Your task to perform on an android device: Go to Wikipedia Image 0: 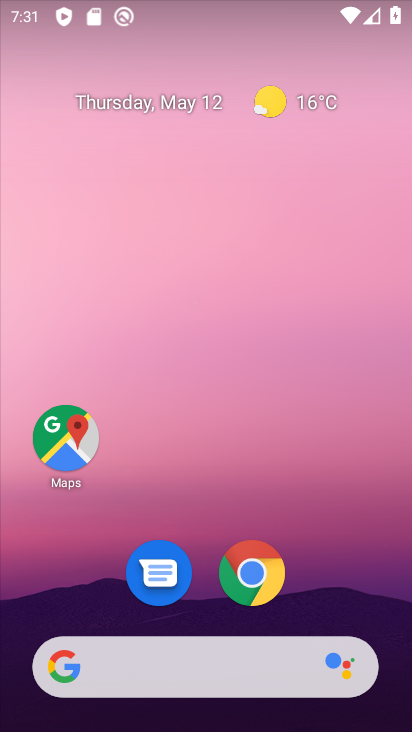
Step 0: click (258, 580)
Your task to perform on an android device: Go to Wikipedia Image 1: 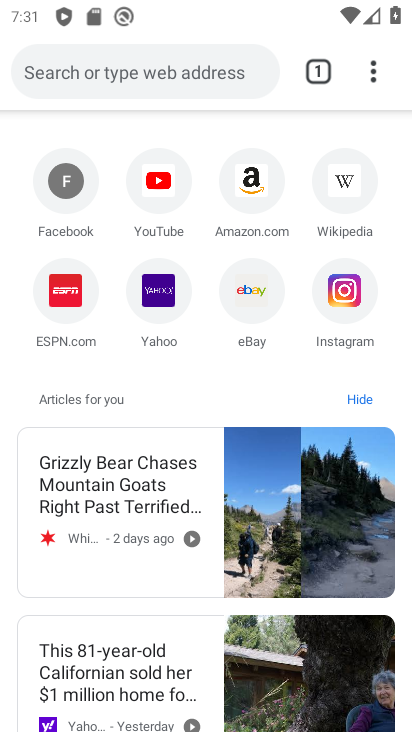
Step 1: click (345, 186)
Your task to perform on an android device: Go to Wikipedia Image 2: 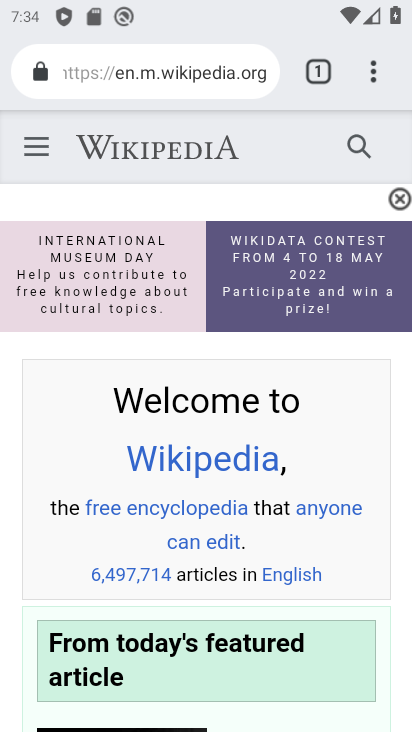
Step 2: task complete